Your task to perform on an android device: find which apps use the phone's location Image 0: 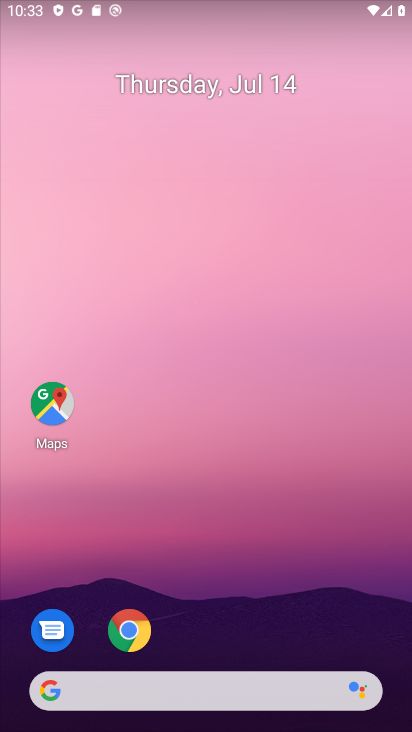
Step 0: drag from (242, 202) to (257, 171)
Your task to perform on an android device: find which apps use the phone's location Image 1: 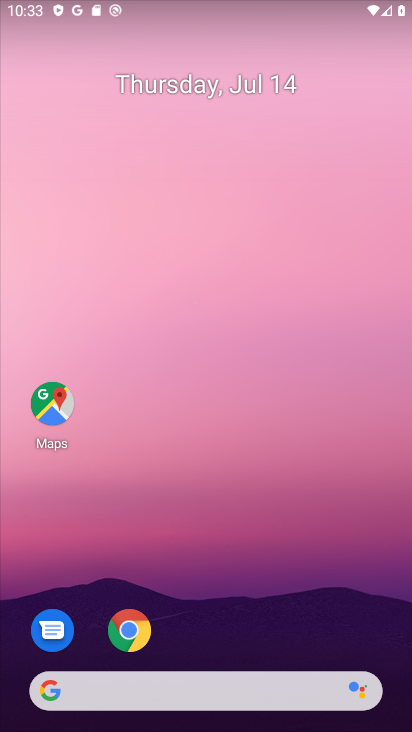
Step 1: drag from (196, 643) to (275, 47)
Your task to perform on an android device: find which apps use the phone's location Image 2: 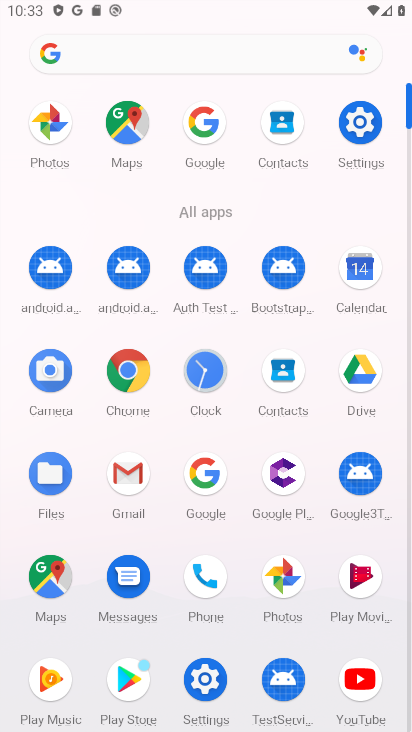
Step 2: click (210, 683)
Your task to perform on an android device: find which apps use the phone's location Image 3: 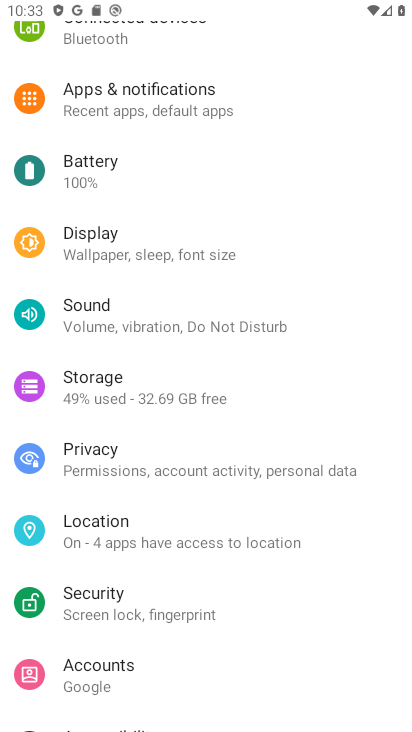
Step 3: click (103, 541)
Your task to perform on an android device: find which apps use the phone's location Image 4: 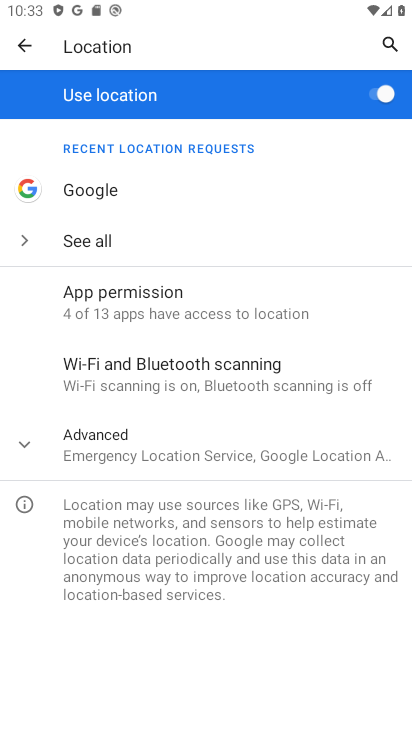
Step 4: click (182, 313)
Your task to perform on an android device: find which apps use the phone's location Image 5: 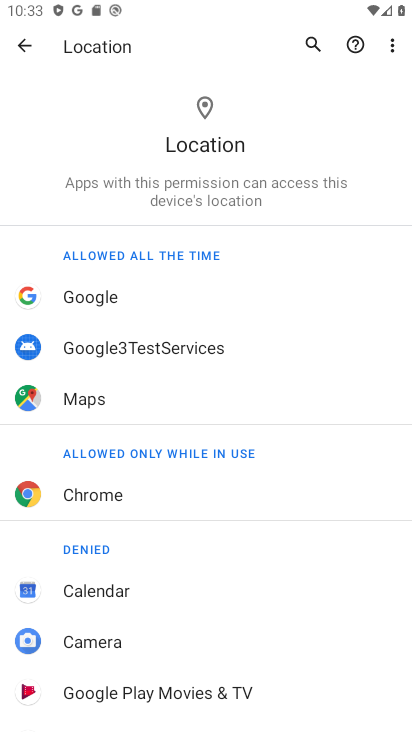
Step 5: task complete